Your task to perform on an android device: change the clock display to show seconds Image 0: 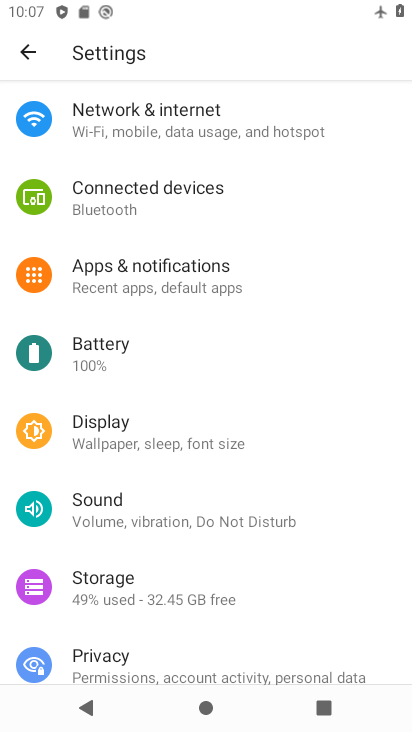
Step 0: press home button
Your task to perform on an android device: change the clock display to show seconds Image 1: 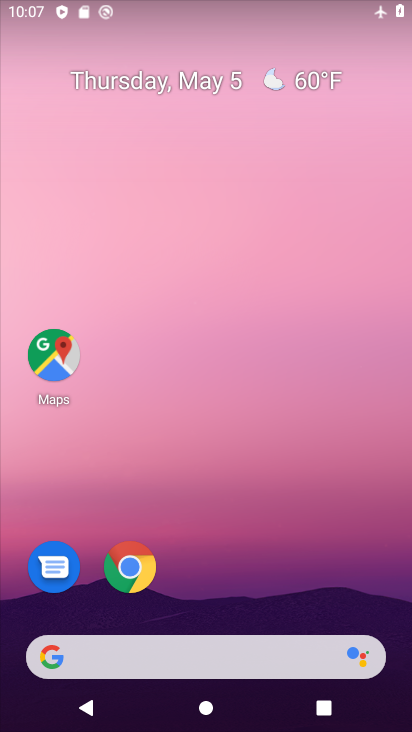
Step 1: drag from (235, 597) to (235, 176)
Your task to perform on an android device: change the clock display to show seconds Image 2: 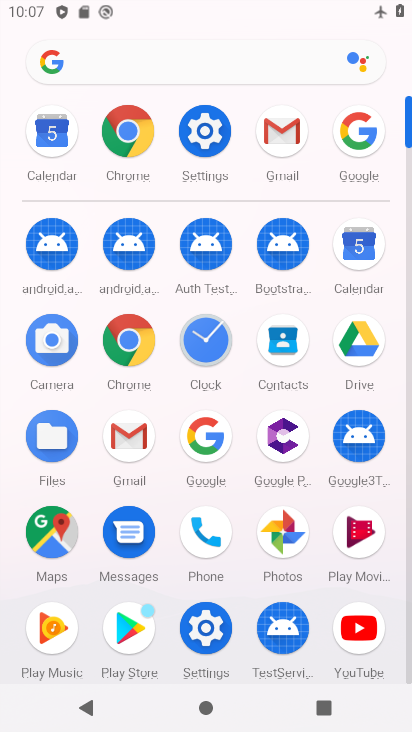
Step 2: click (200, 359)
Your task to perform on an android device: change the clock display to show seconds Image 3: 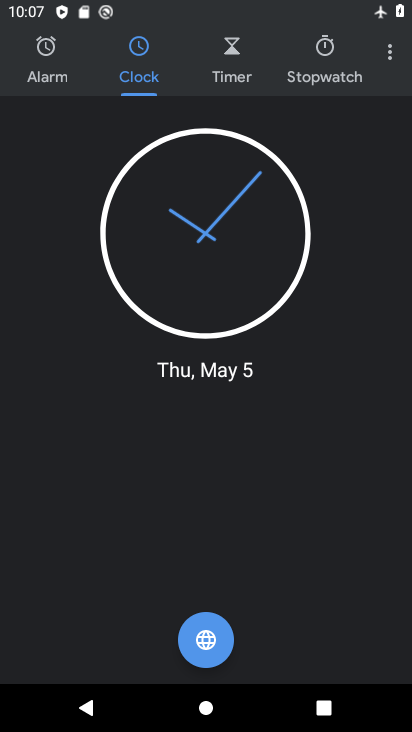
Step 3: click (384, 55)
Your task to perform on an android device: change the clock display to show seconds Image 4: 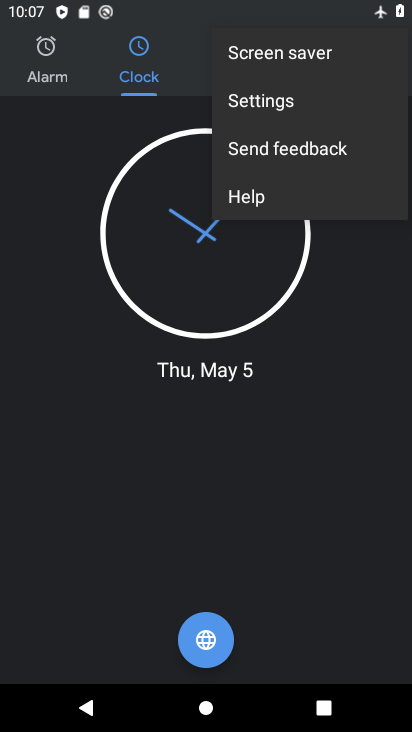
Step 4: click (250, 104)
Your task to perform on an android device: change the clock display to show seconds Image 5: 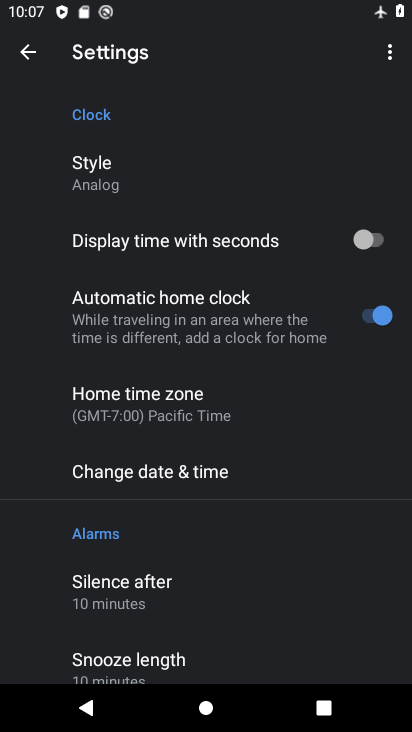
Step 5: click (378, 235)
Your task to perform on an android device: change the clock display to show seconds Image 6: 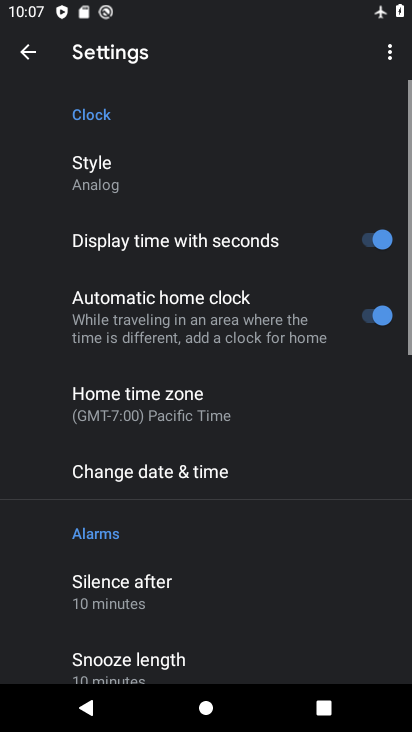
Step 6: task complete